Your task to perform on an android device: open a new tab in the chrome app Image 0: 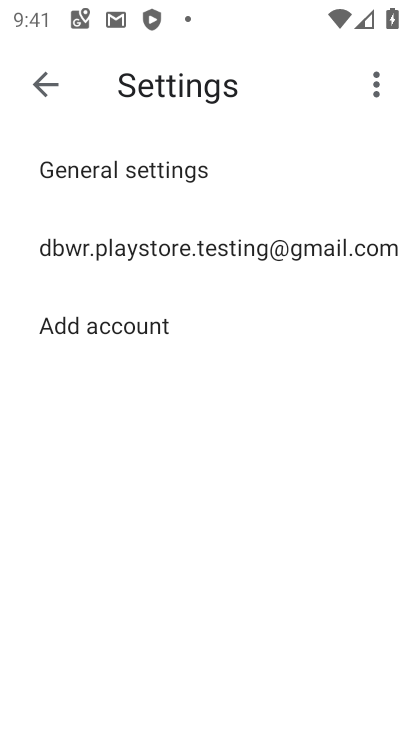
Step 0: click (36, 85)
Your task to perform on an android device: open a new tab in the chrome app Image 1: 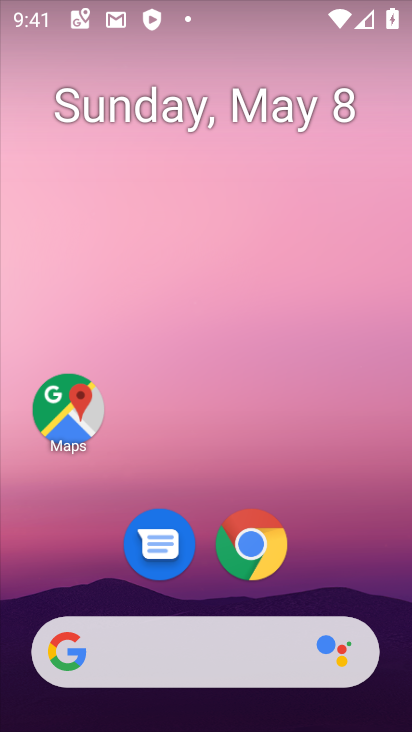
Step 1: click (257, 564)
Your task to perform on an android device: open a new tab in the chrome app Image 2: 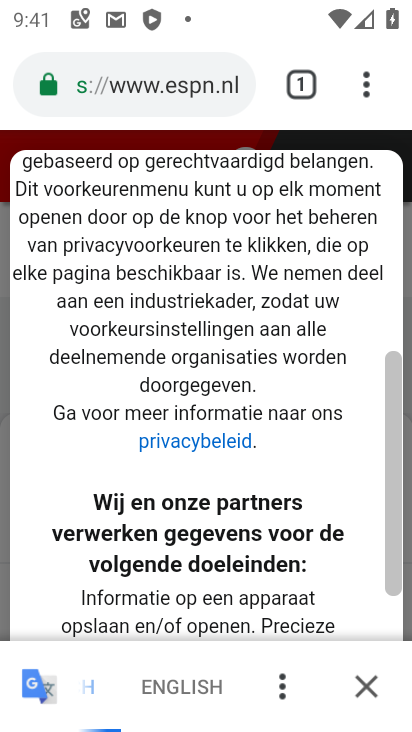
Step 2: click (301, 97)
Your task to perform on an android device: open a new tab in the chrome app Image 3: 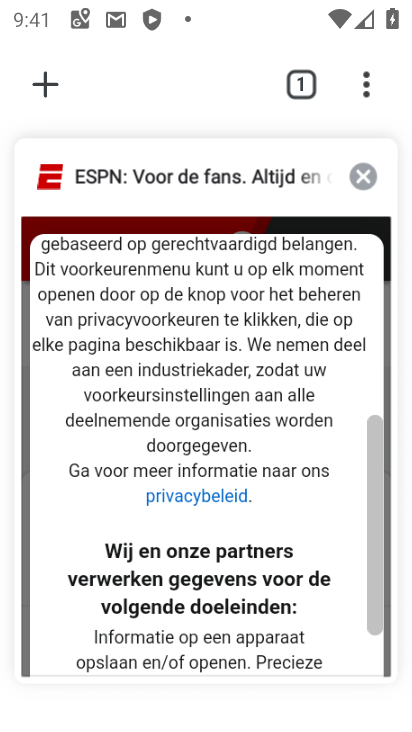
Step 3: click (47, 85)
Your task to perform on an android device: open a new tab in the chrome app Image 4: 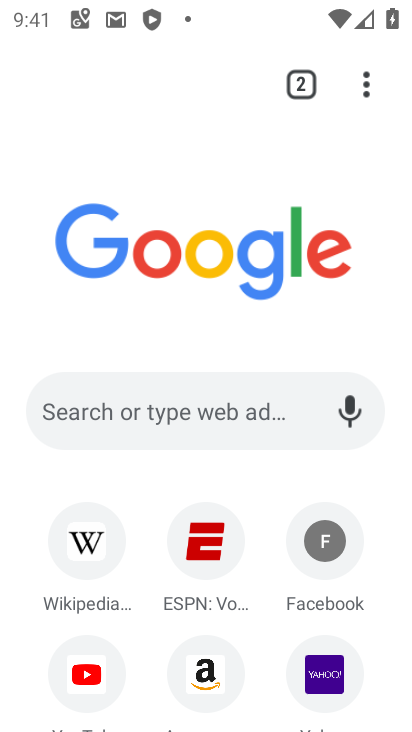
Step 4: task complete